Your task to perform on an android device: turn on translation in the chrome app Image 0: 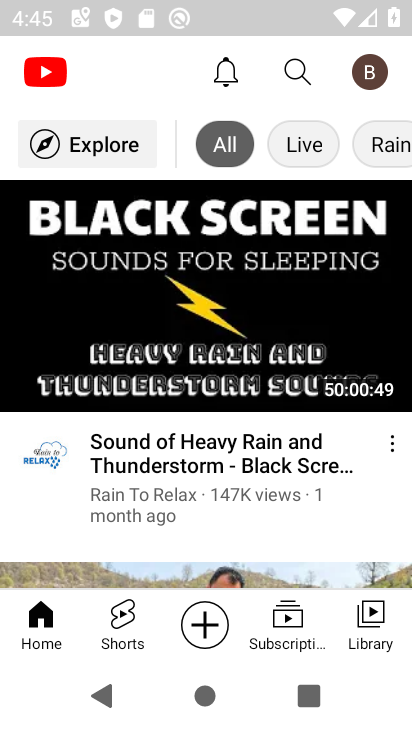
Step 0: press home button
Your task to perform on an android device: turn on translation in the chrome app Image 1: 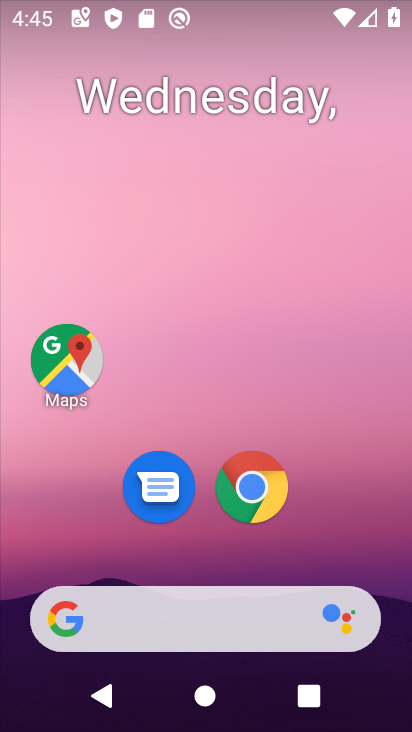
Step 1: drag from (240, 643) to (299, 258)
Your task to perform on an android device: turn on translation in the chrome app Image 2: 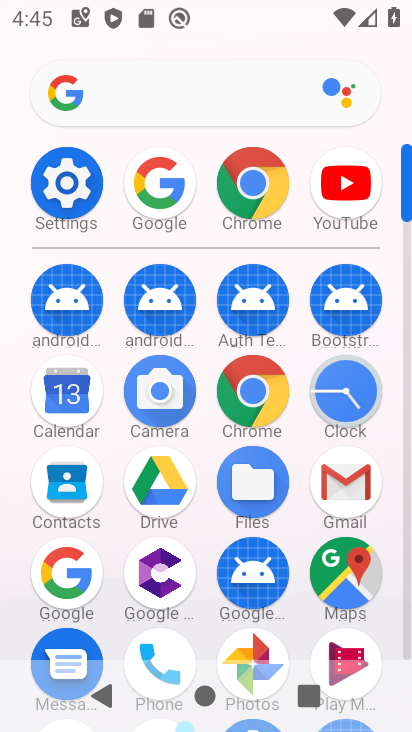
Step 2: click (240, 400)
Your task to perform on an android device: turn on translation in the chrome app Image 3: 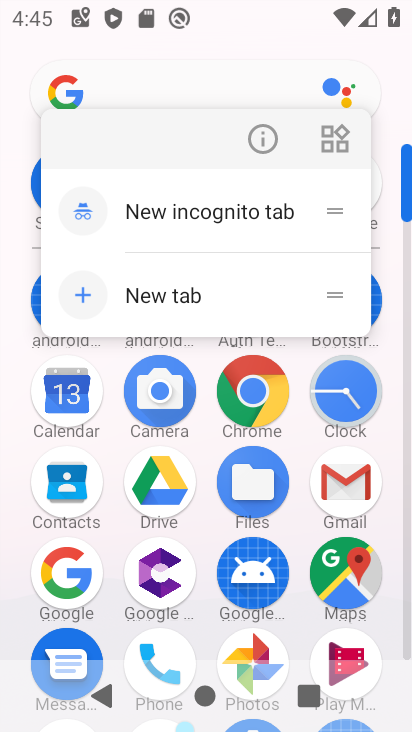
Step 3: click (258, 396)
Your task to perform on an android device: turn on translation in the chrome app Image 4: 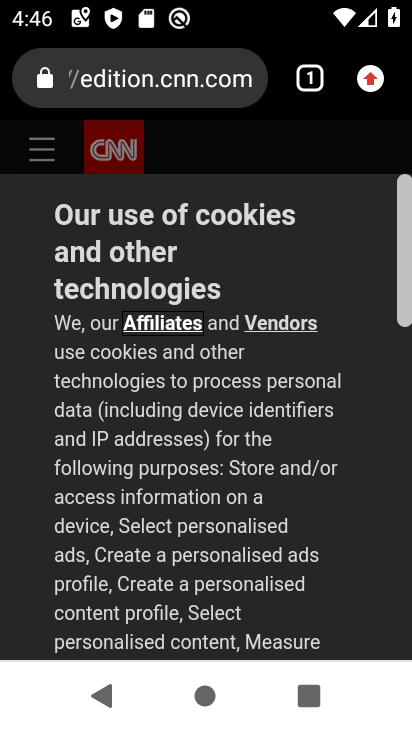
Step 4: click (376, 99)
Your task to perform on an android device: turn on translation in the chrome app Image 5: 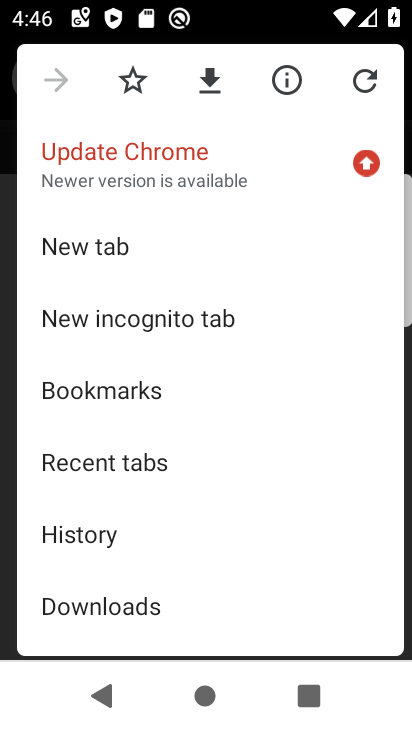
Step 5: task complete